Your task to perform on an android device: Search for sushi restaurants on Maps Image 0: 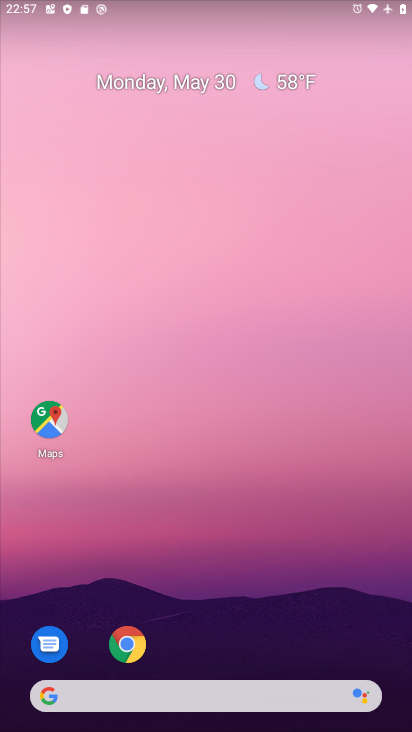
Step 0: click (45, 415)
Your task to perform on an android device: Search for sushi restaurants on Maps Image 1: 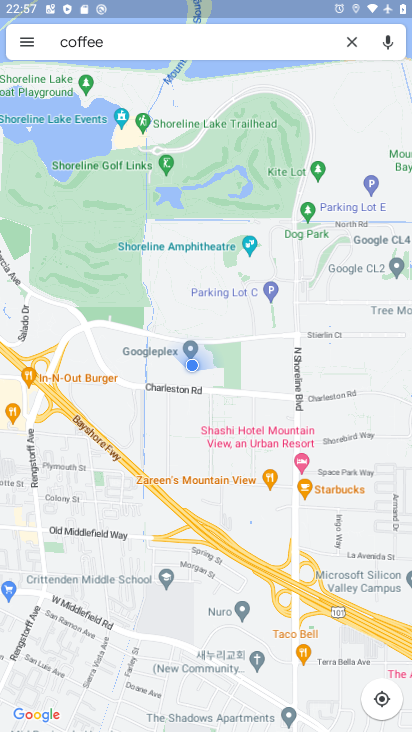
Step 1: click (126, 35)
Your task to perform on an android device: Search for sushi restaurants on Maps Image 2: 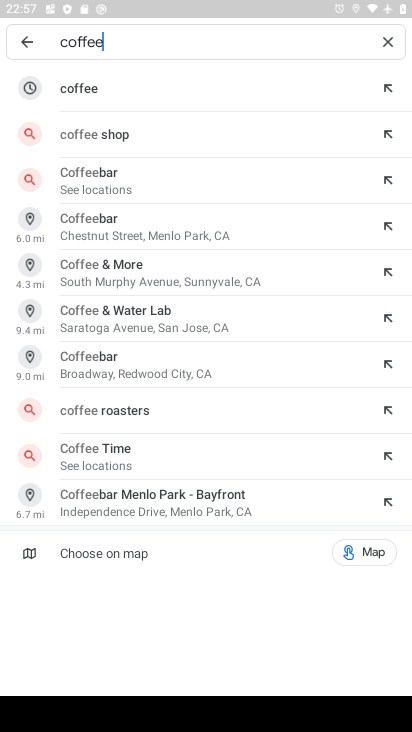
Step 2: click (391, 36)
Your task to perform on an android device: Search for sushi restaurants on Maps Image 3: 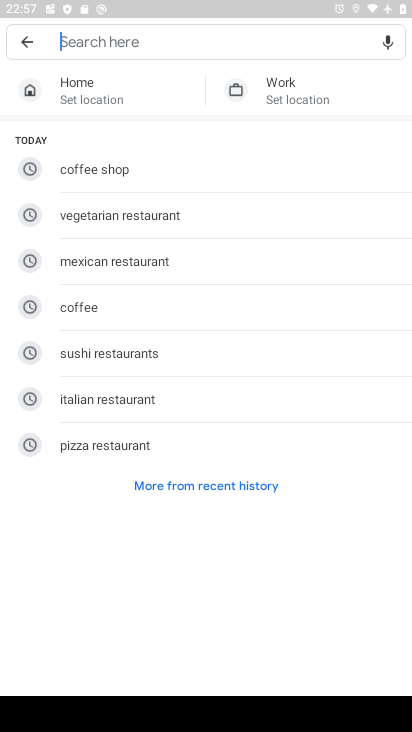
Step 3: type "sushi restaurants"
Your task to perform on an android device: Search for sushi restaurants on Maps Image 4: 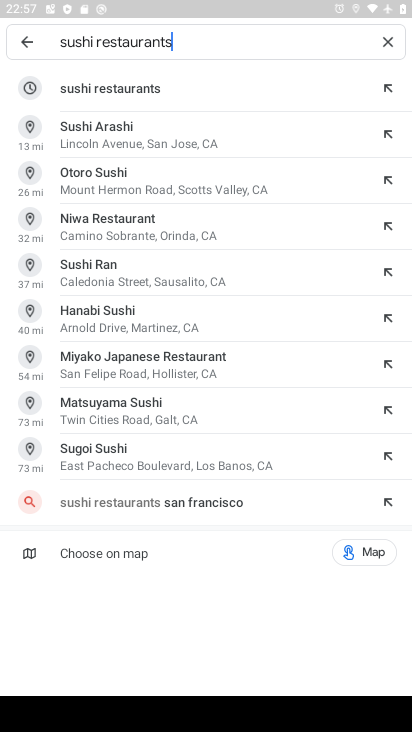
Step 4: click (109, 87)
Your task to perform on an android device: Search for sushi restaurants on Maps Image 5: 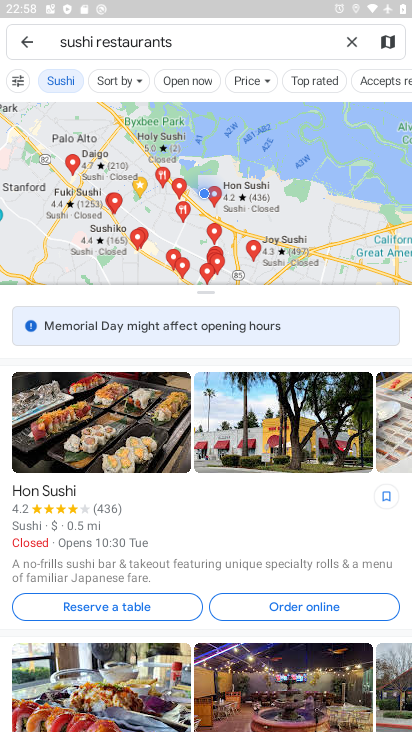
Step 5: task complete